Your task to perform on an android device: Do I have any events tomorrow? Image 0: 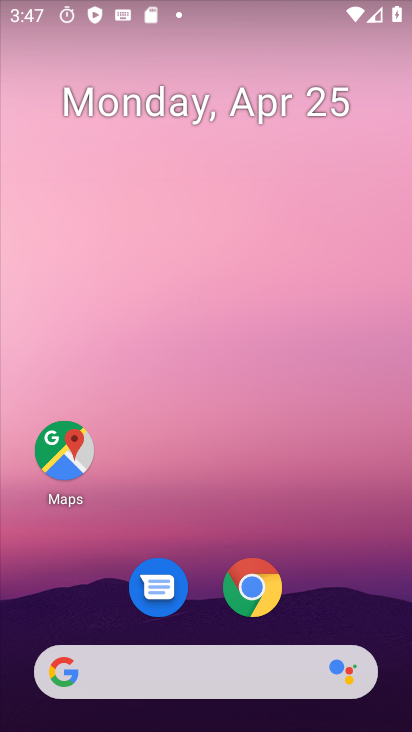
Step 0: drag from (333, 460) to (233, 95)
Your task to perform on an android device: Do I have any events tomorrow? Image 1: 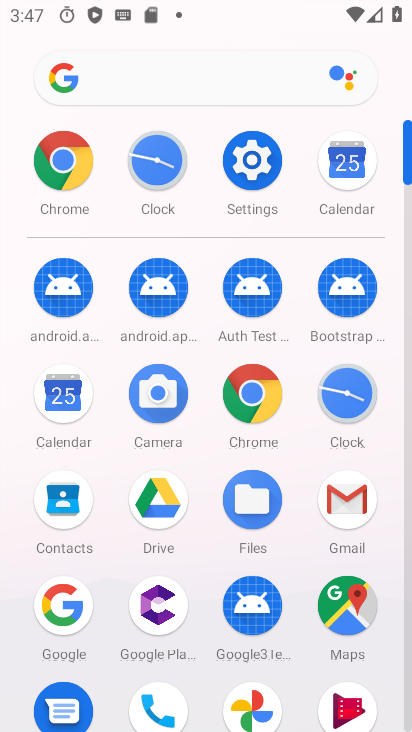
Step 1: drag from (301, 510) to (327, 210)
Your task to perform on an android device: Do I have any events tomorrow? Image 2: 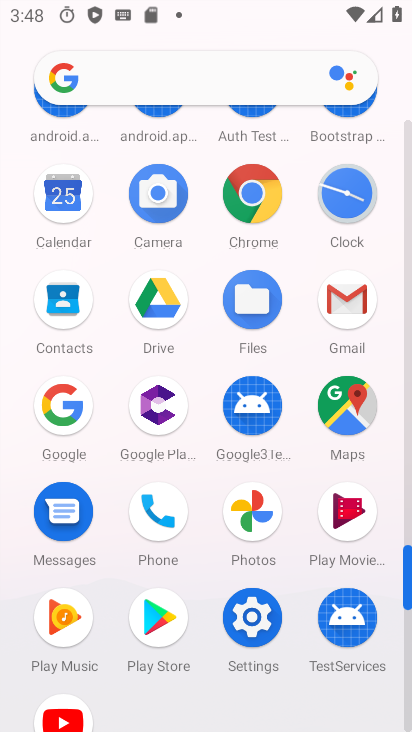
Step 2: click (76, 188)
Your task to perform on an android device: Do I have any events tomorrow? Image 3: 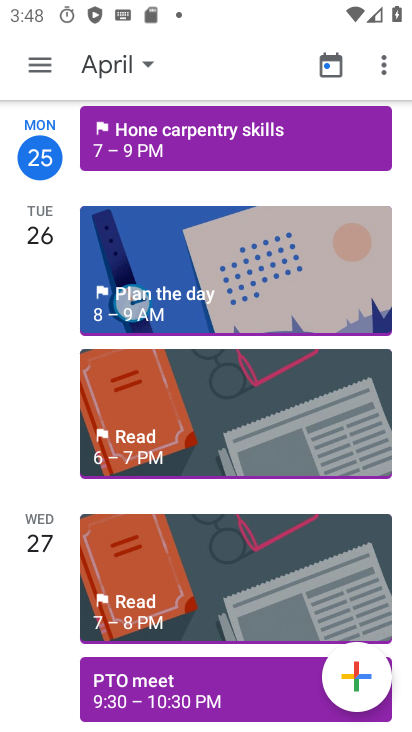
Step 3: task complete